Your task to perform on an android device: Search for Italian restaurants on Maps Image 0: 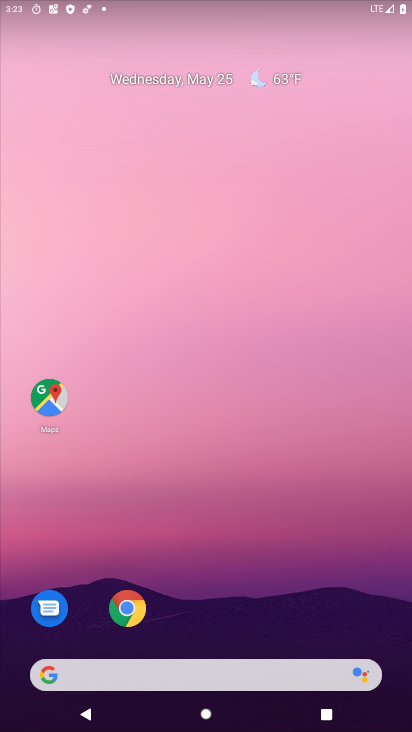
Step 0: click (50, 392)
Your task to perform on an android device: Search for Italian restaurants on Maps Image 1: 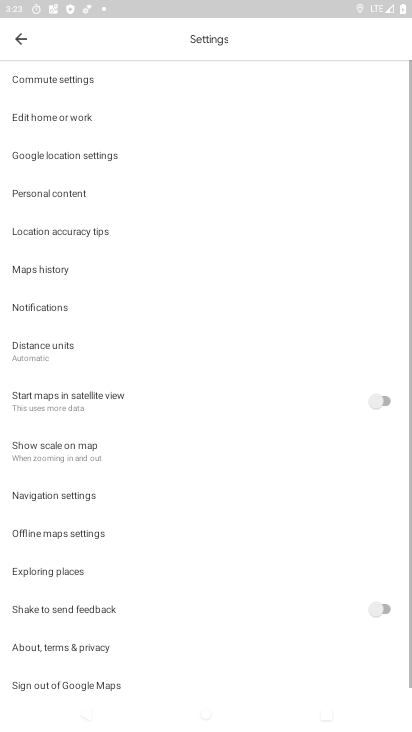
Step 1: click (25, 40)
Your task to perform on an android device: Search for Italian restaurants on Maps Image 2: 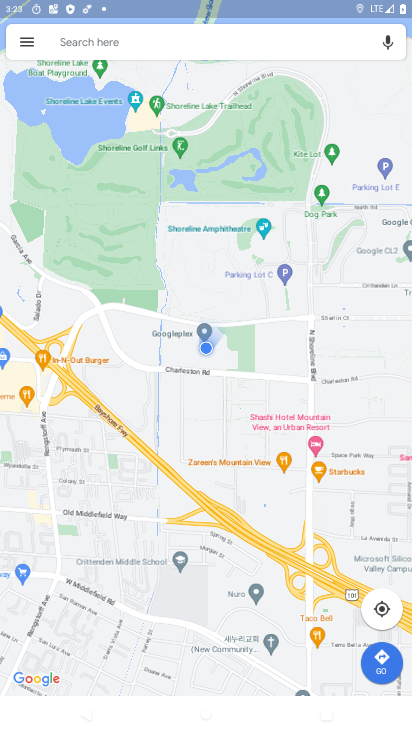
Step 2: click (165, 46)
Your task to perform on an android device: Search for Italian restaurants on Maps Image 3: 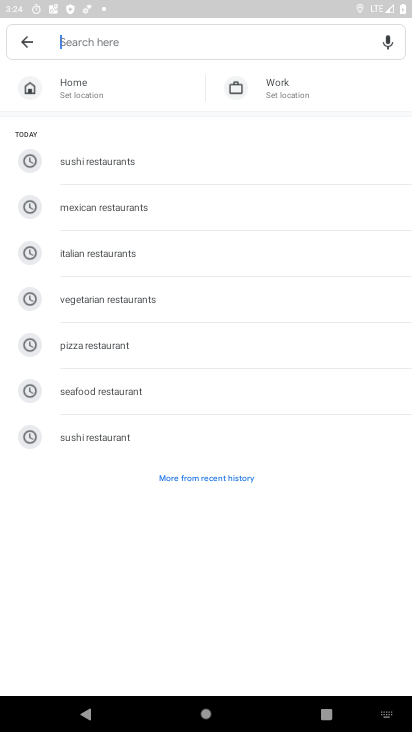
Step 3: type "Italian restaurants"
Your task to perform on an android device: Search for Italian restaurants on Maps Image 4: 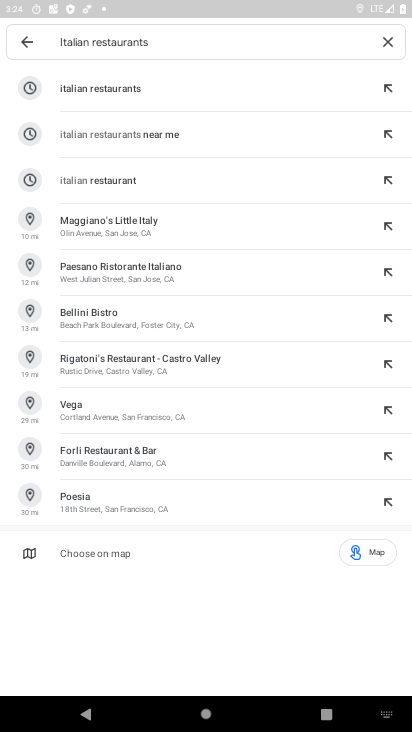
Step 4: click (102, 87)
Your task to perform on an android device: Search for Italian restaurants on Maps Image 5: 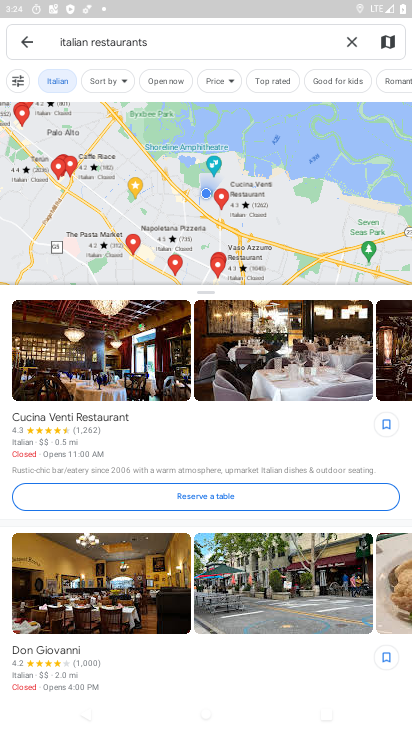
Step 5: task complete